Your task to perform on an android device: toggle javascript in the chrome app Image 0: 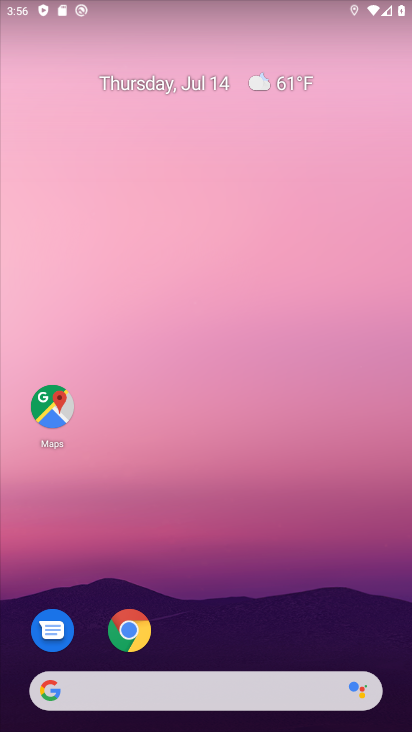
Step 0: click (133, 623)
Your task to perform on an android device: toggle javascript in the chrome app Image 1: 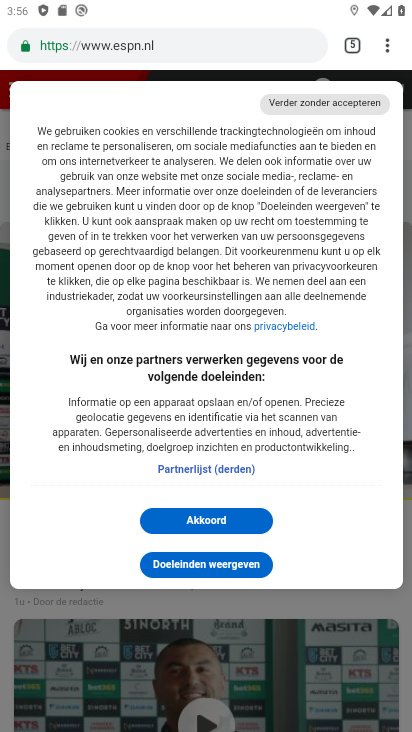
Step 1: click (387, 60)
Your task to perform on an android device: toggle javascript in the chrome app Image 2: 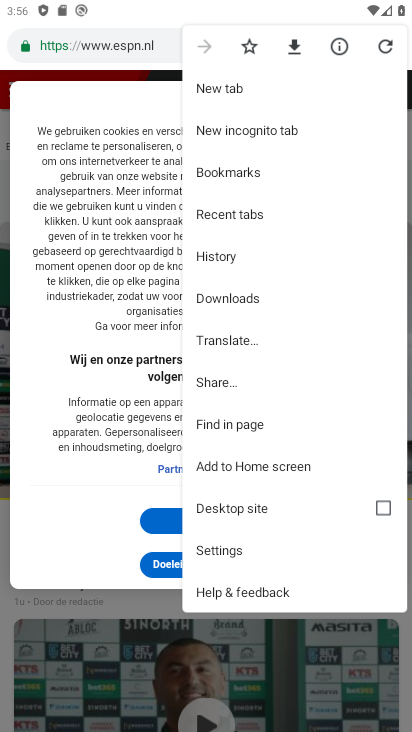
Step 2: click (242, 544)
Your task to perform on an android device: toggle javascript in the chrome app Image 3: 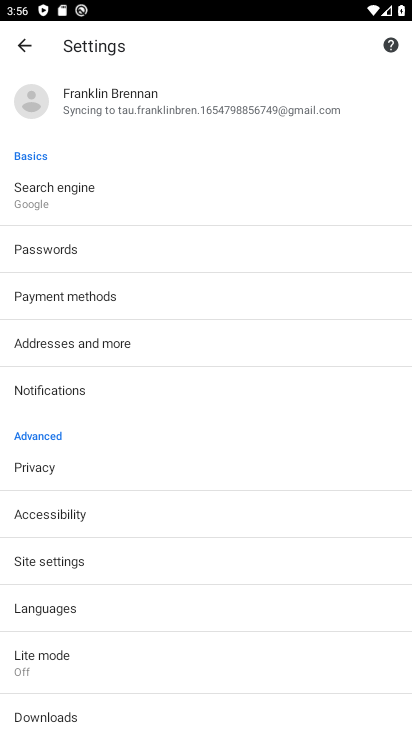
Step 3: click (80, 565)
Your task to perform on an android device: toggle javascript in the chrome app Image 4: 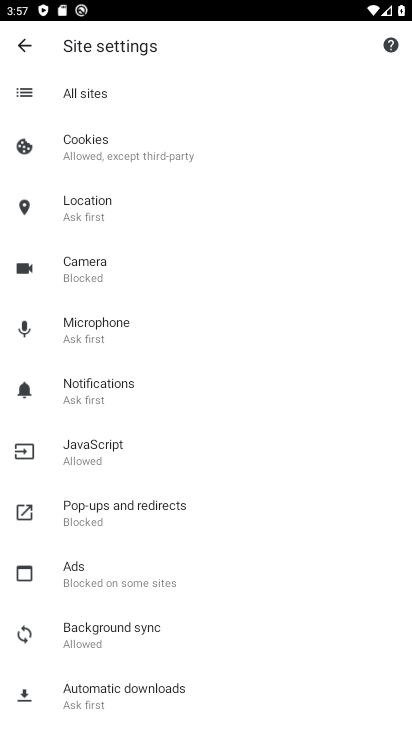
Step 4: click (119, 466)
Your task to perform on an android device: toggle javascript in the chrome app Image 5: 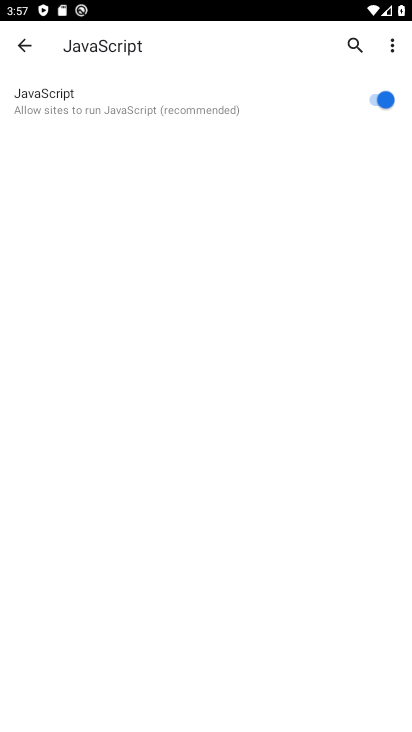
Step 5: click (380, 103)
Your task to perform on an android device: toggle javascript in the chrome app Image 6: 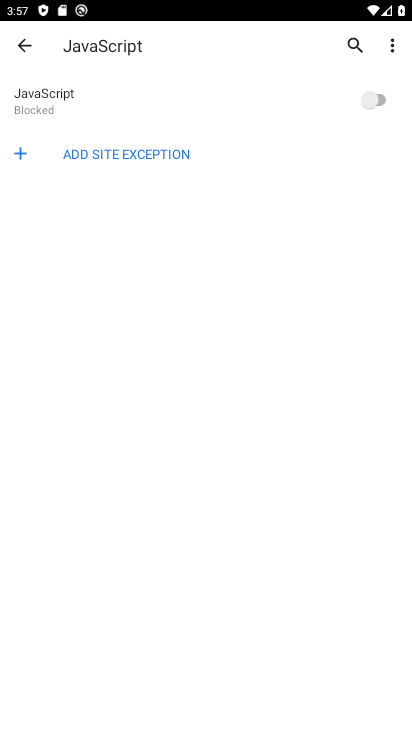
Step 6: task complete